Your task to perform on an android device: stop showing notifications on the lock screen Image 0: 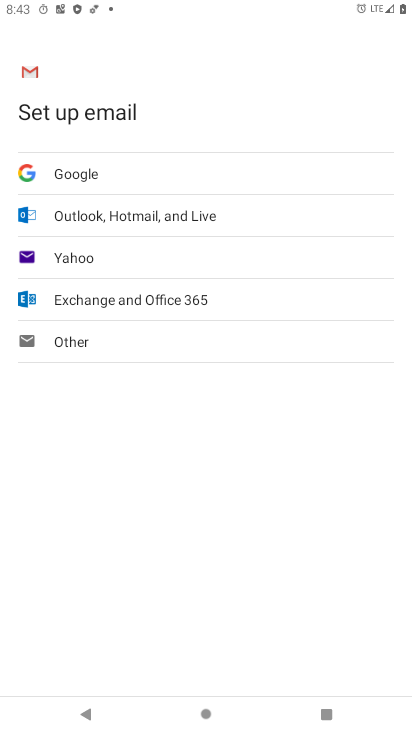
Step 0: press home button
Your task to perform on an android device: stop showing notifications on the lock screen Image 1: 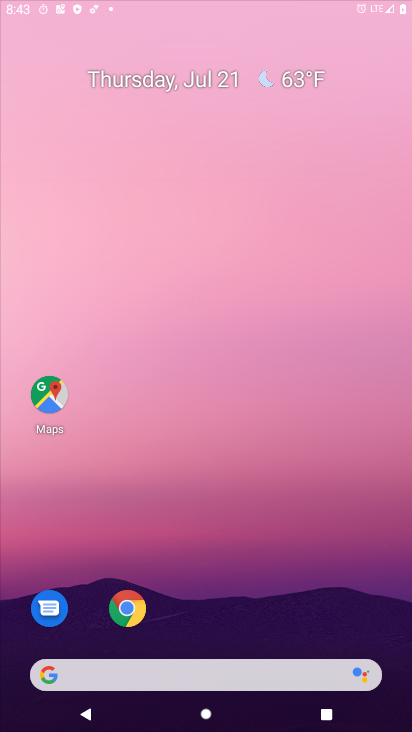
Step 1: drag from (257, 656) to (285, 73)
Your task to perform on an android device: stop showing notifications on the lock screen Image 2: 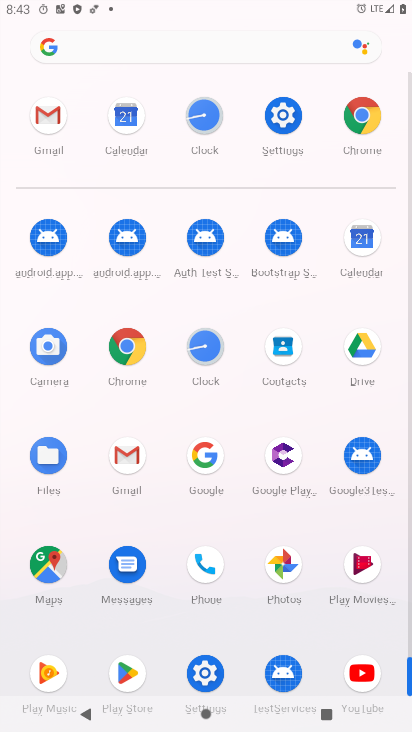
Step 2: click (292, 121)
Your task to perform on an android device: stop showing notifications on the lock screen Image 3: 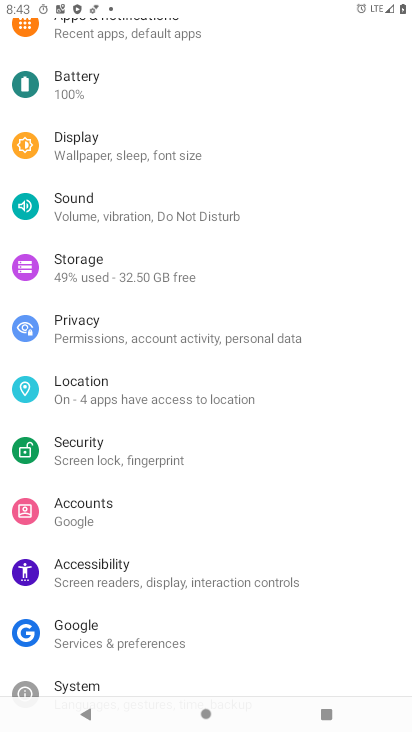
Step 3: drag from (89, 137) to (83, 366)
Your task to perform on an android device: stop showing notifications on the lock screen Image 4: 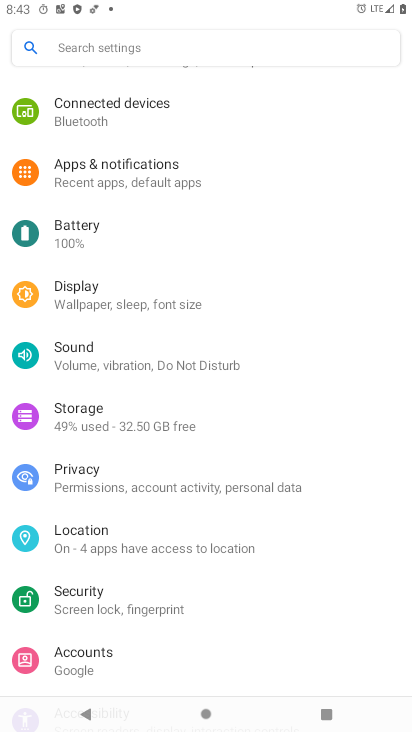
Step 4: click (177, 179)
Your task to perform on an android device: stop showing notifications on the lock screen Image 5: 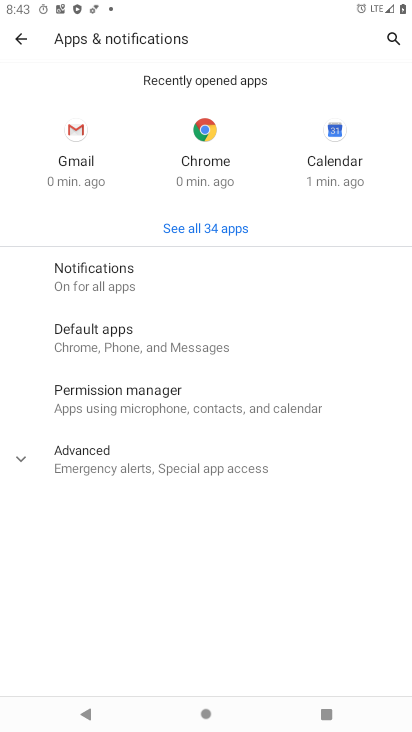
Step 5: click (115, 284)
Your task to perform on an android device: stop showing notifications on the lock screen Image 6: 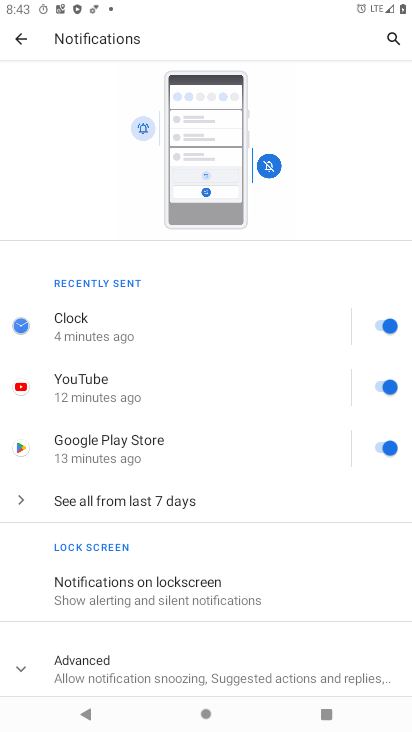
Step 6: click (82, 594)
Your task to perform on an android device: stop showing notifications on the lock screen Image 7: 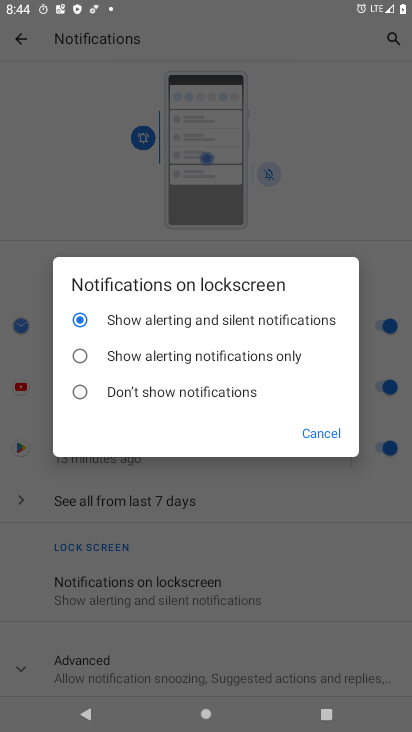
Step 7: click (172, 397)
Your task to perform on an android device: stop showing notifications on the lock screen Image 8: 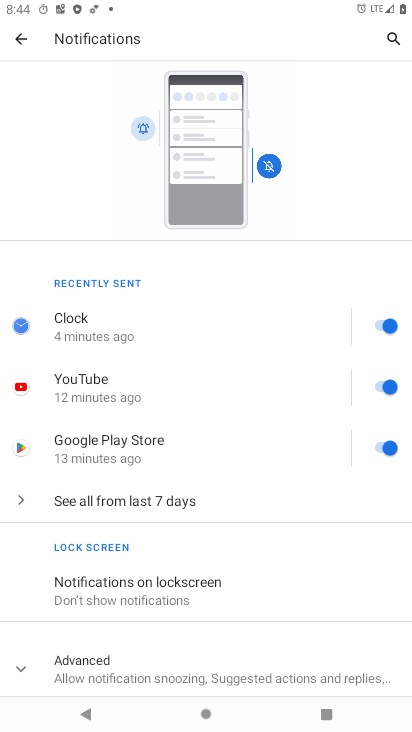
Step 8: task complete